Your task to perform on an android device: open app "Etsy: Buy & Sell Unique Items" Image 0: 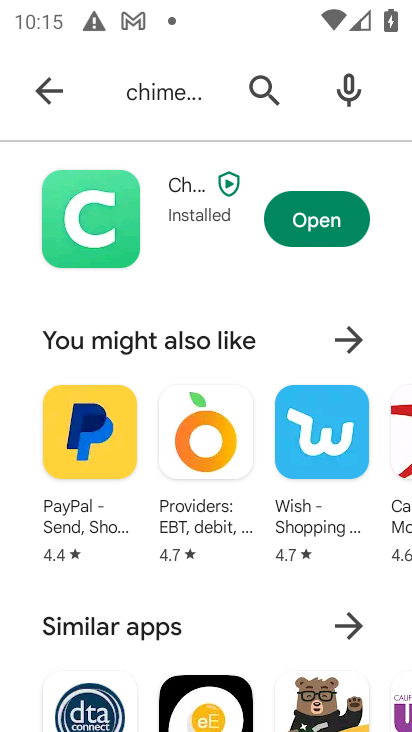
Step 0: click (273, 80)
Your task to perform on an android device: open app "Etsy: Buy & Sell Unique Items" Image 1: 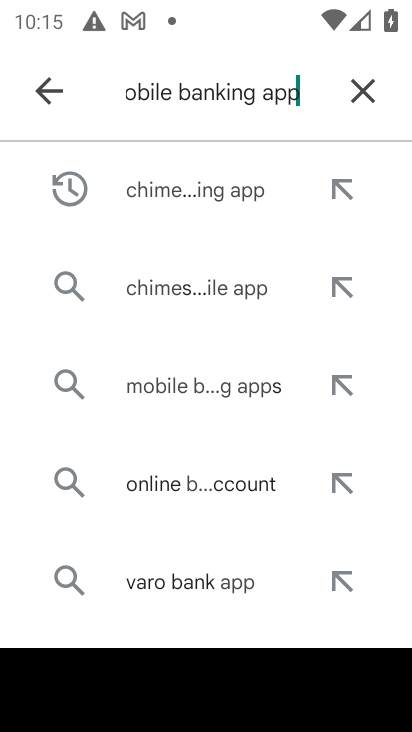
Step 1: click (369, 89)
Your task to perform on an android device: open app "Etsy: Buy & Sell Unique Items" Image 2: 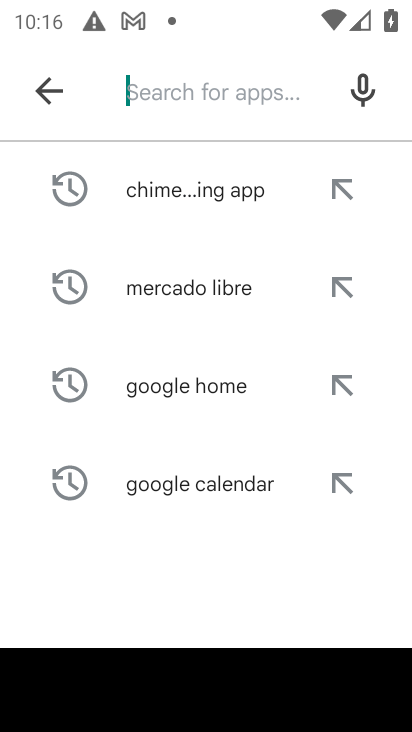
Step 2: type "Etsy: Buy & Sell Unique Items""
Your task to perform on an android device: open app "Etsy: Buy & Sell Unique Items" Image 3: 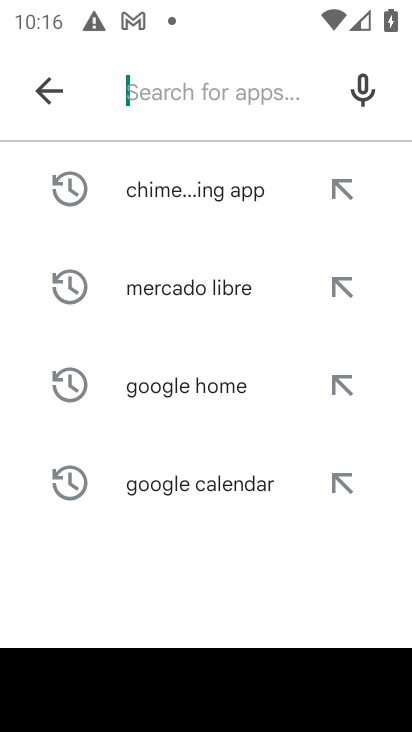
Step 3: type ""
Your task to perform on an android device: open app "Etsy: Buy & Sell Unique Items" Image 4: 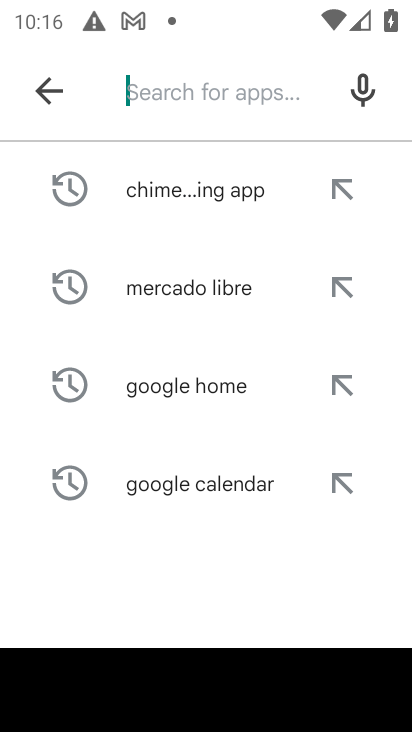
Step 4: type "Etsy: Buy & Sell Unique Items"
Your task to perform on an android device: open app "Etsy: Buy & Sell Unique Items" Image 5: 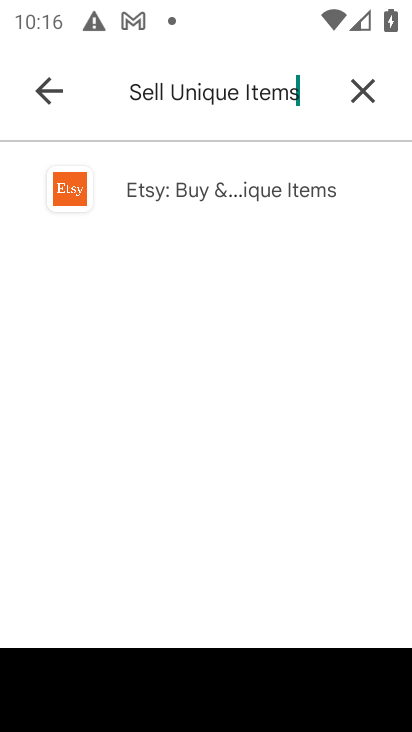
Step 5: click (306, 204)
Your task to perform on an android device: open app "Etsy: Buy & Sell Unique Items" Image 6: 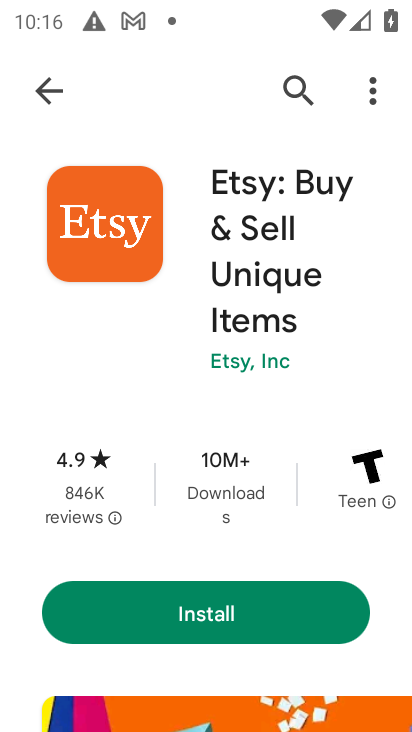
Step 6: task complete